Your task to perform on an android device: empty trash in the gmail app Image 0: 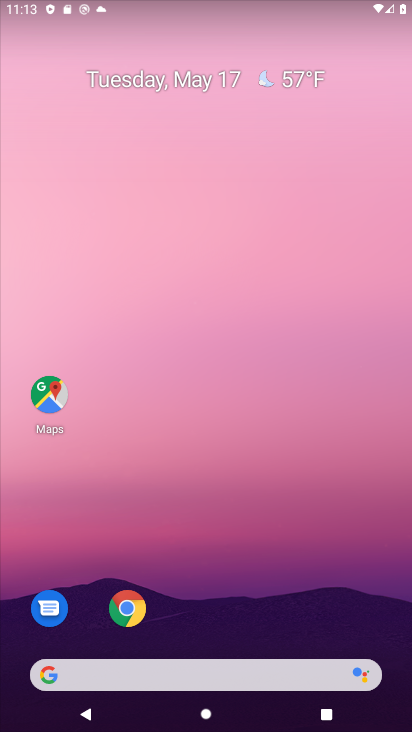
Step 0: drag from (203, 600) to (319, 68)
Your task to perform on an android device: empty trash in the gmail app Image 1: 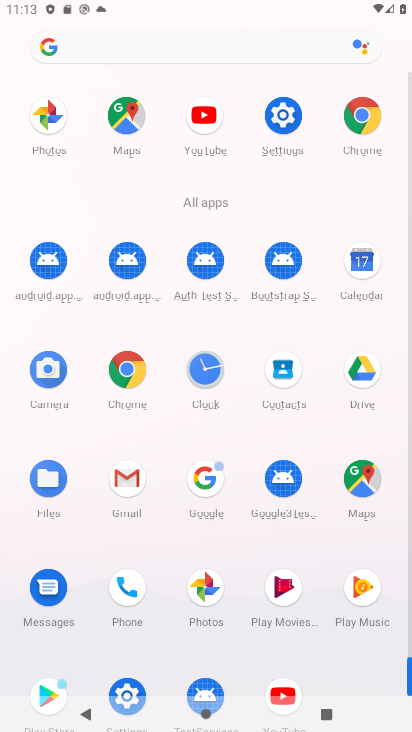
Step 1: click (133, 493)
Your task to perform on an android device: empty trash in the gmail app Image 2: 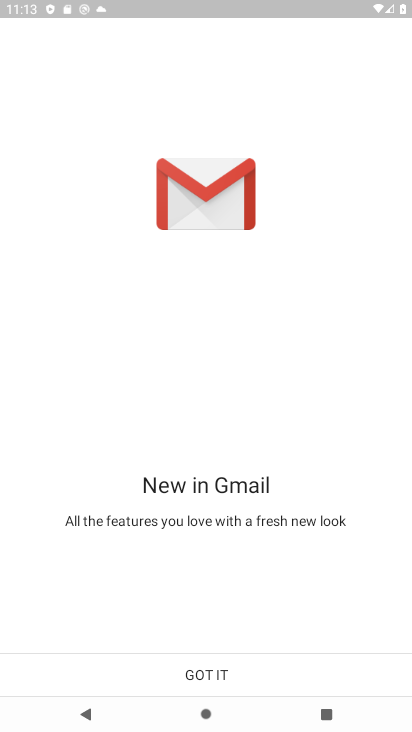
Step 2: click (195, 679)
Your task to perform on an android device: empty trash in the gmail app Image 3: 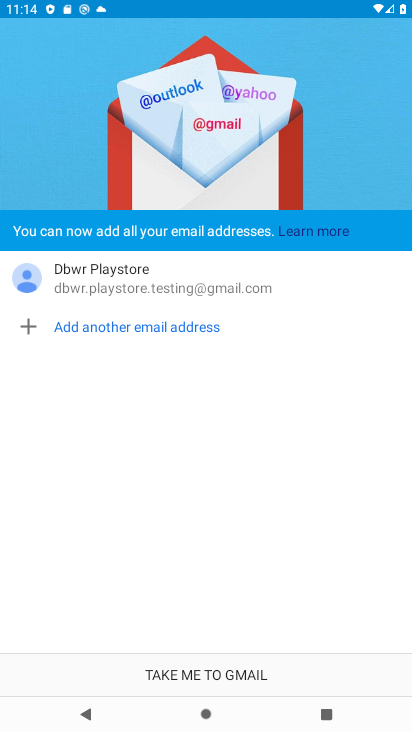
Step 3: click (200, 674)
Your task to perform on an android device: empty trash in the gmail app Image 4: 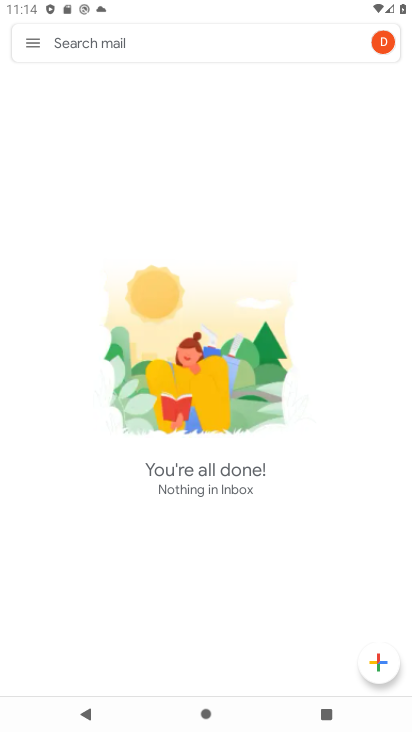
Step 4: click (30, 39)
Your task to perform on an android device: empty trash in the gmail app Image 5: 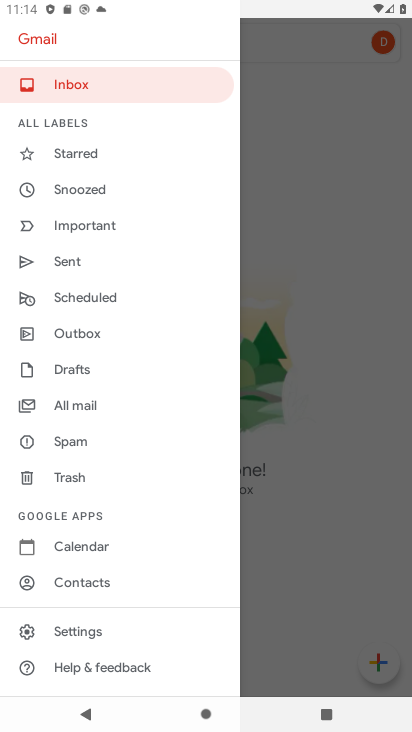
Step 5: click (87, 475)
Your task to perform on an android device: empty trash in the gmail app Image 6: 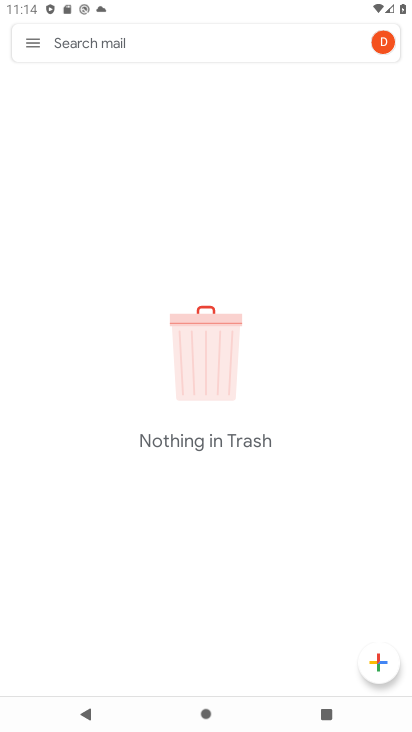
Step 6: task complete